Your task to perform on an android device: clear history in the chrome app Image 0: 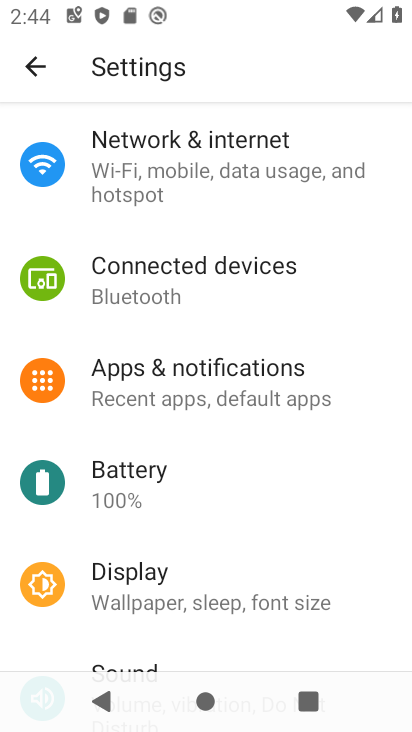
Step 0: press home button
Your task to perform on an android device: clear history in the chrome app Image 1: 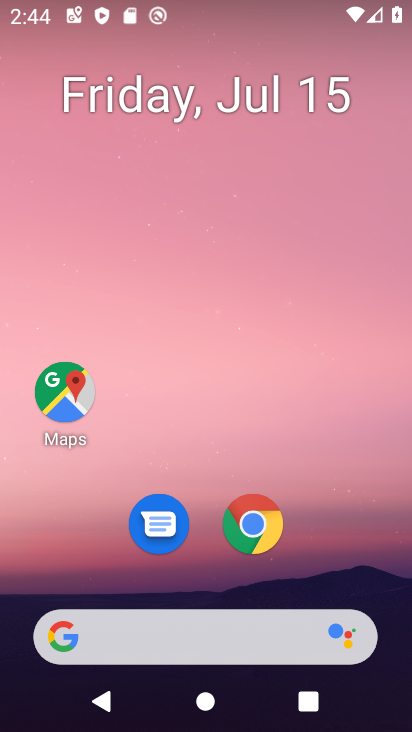
Step 1: click (247, 532)
Your task to perform on an android device: clear history in the chrome app Image 2: 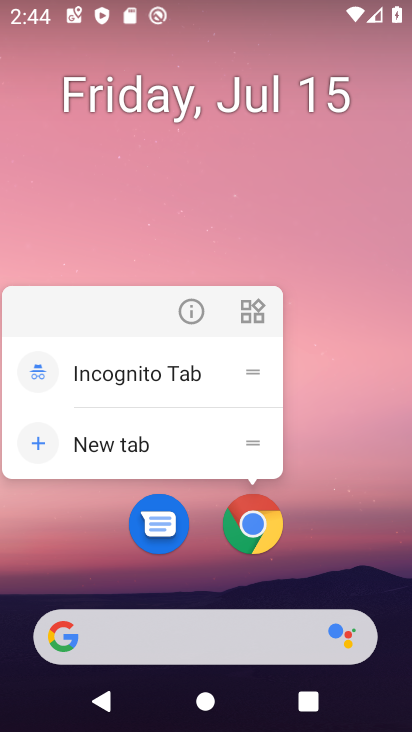
Step 2: click (255, 526)
Your task to perform on an android device: clear history in the chrome app Image 3: 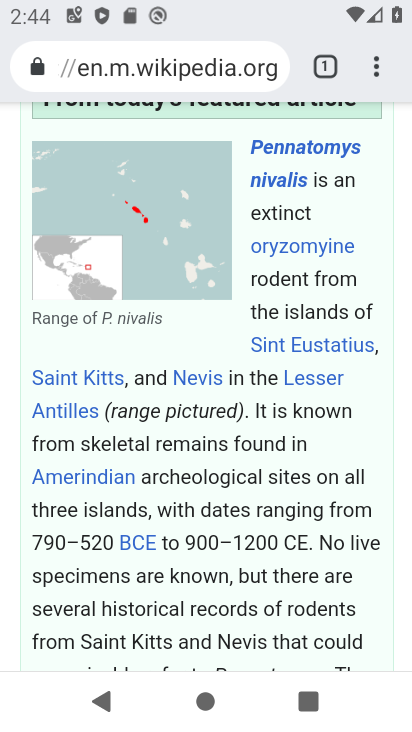
Step 3: drag from (380, 62) to (174, 369)
Your task to perform on an android device: clear history in the chrome app Image 4: 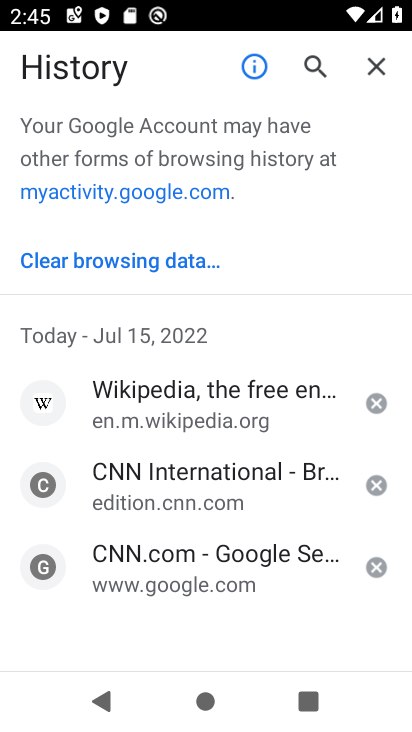
Step 4: click (126, 259)
Your task to perform on an android device: clear history in the chrome app Image 5: 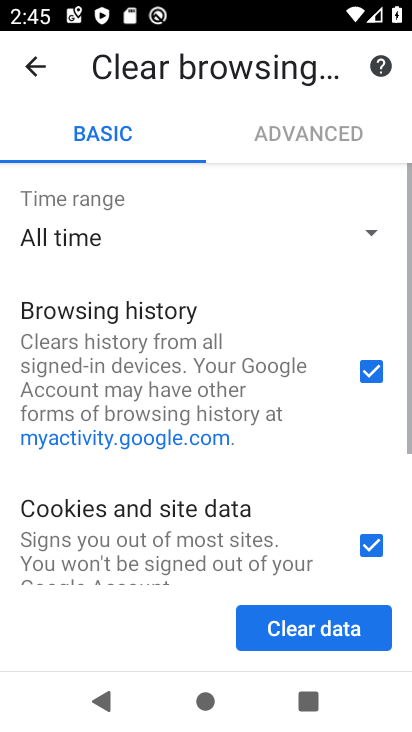
Step 5: drag from (309, 525) to (354, 145)
Your task to perform on an android device: clear history in the chrome app Image 6: 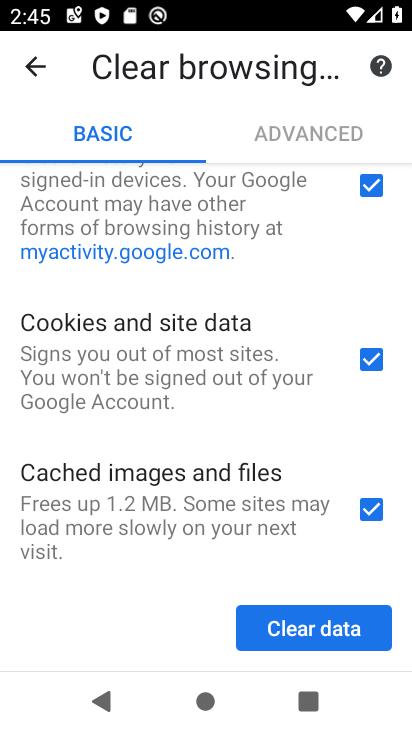
Step 6: click (311, 631)
Your task to perform on an android device: clear history in the chrome app Image 7: 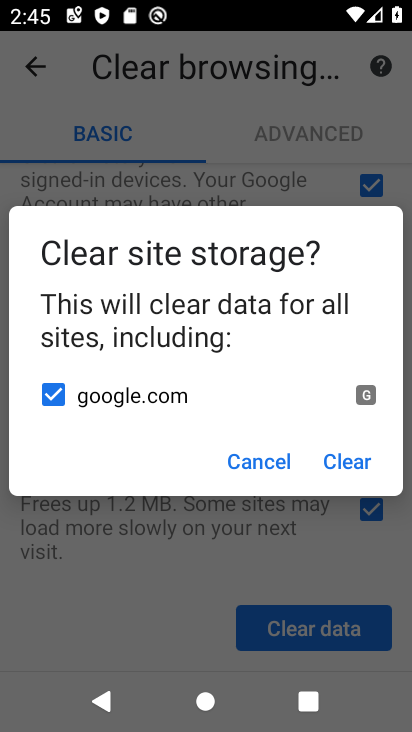
Step 7: click (344, 467)
Your task to perform on an android device: clear history in the chrome app Image 8: 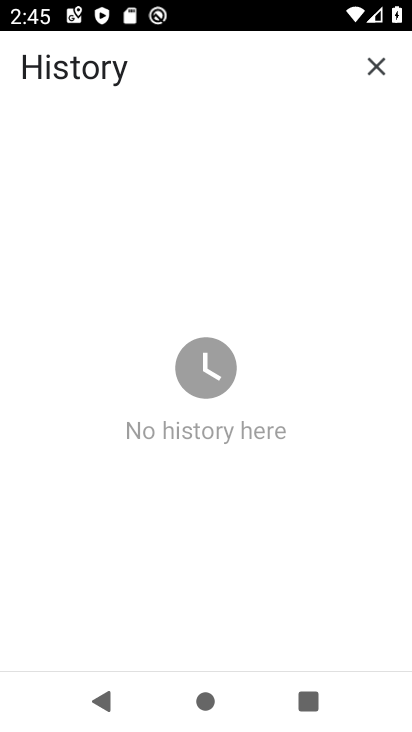
Step 8: task complete